Your task to perform on an android device: Open battery settings Image 0: 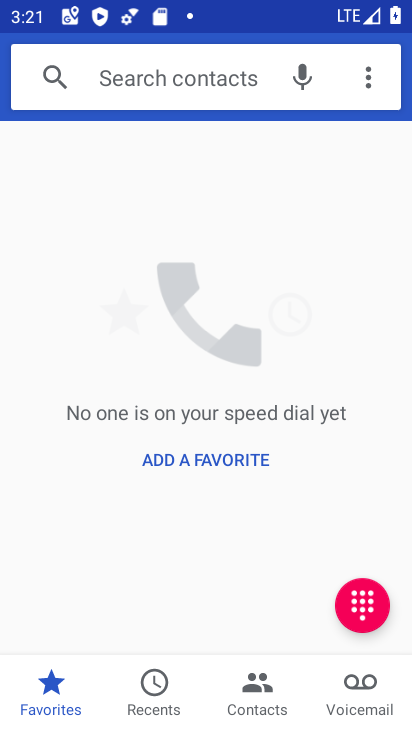
Step 0: press home button
Your task to perform on an android device: Open battery settings Image 1: 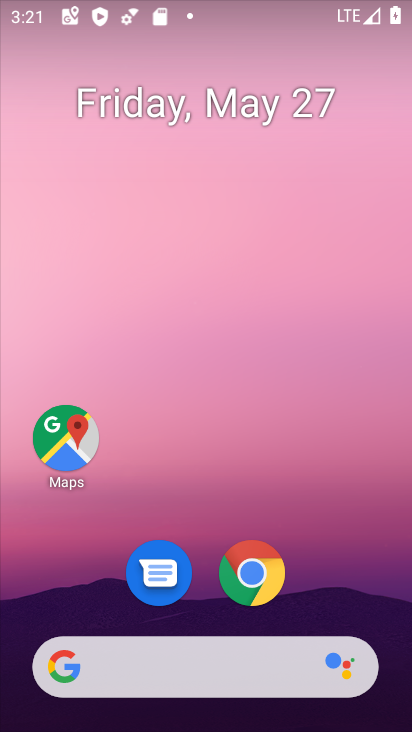
Step 1: drag from (231, 491) to (240, 0)
Your task to perform on an android device: Open battery settings Image 2: 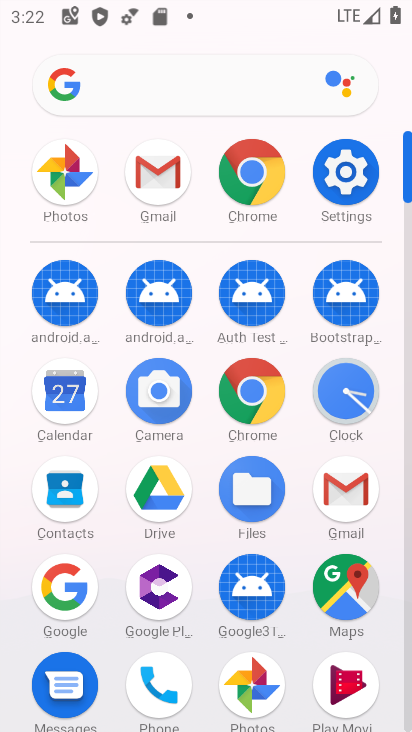
Step 2: click (340, 171)
Your task to perform on an android device: Open battery settings Image 3: 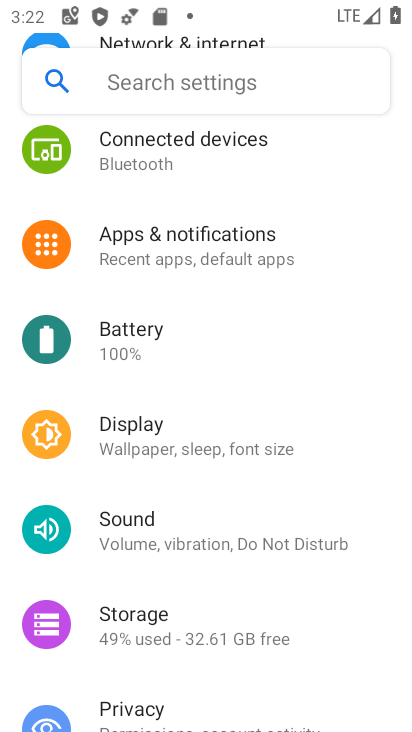
Step 3: click (236, 350)
Your task to perform on an android device: Open battery settings Image 4: 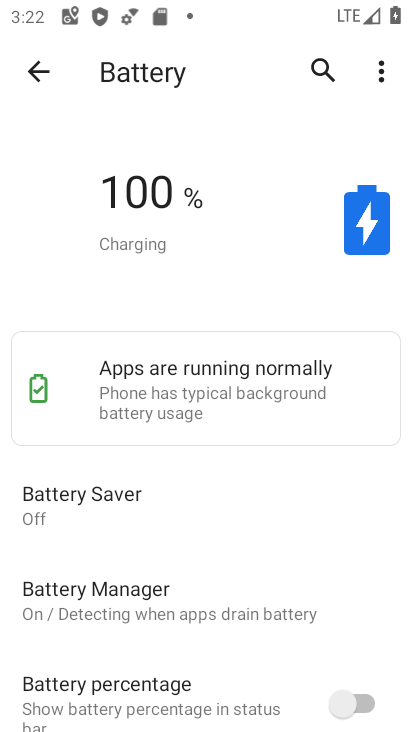
Step 4: task complete